Your task to perform on an android device: turn pop-ups on in chrome Image 0: 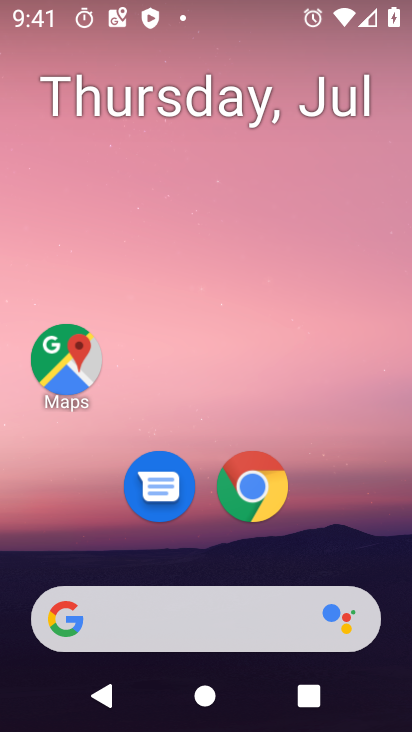
Step 0: drag from (202, 531) to (211, 45)
Your task to perform on an android device: turn pop-ups on in chrome Image 1: 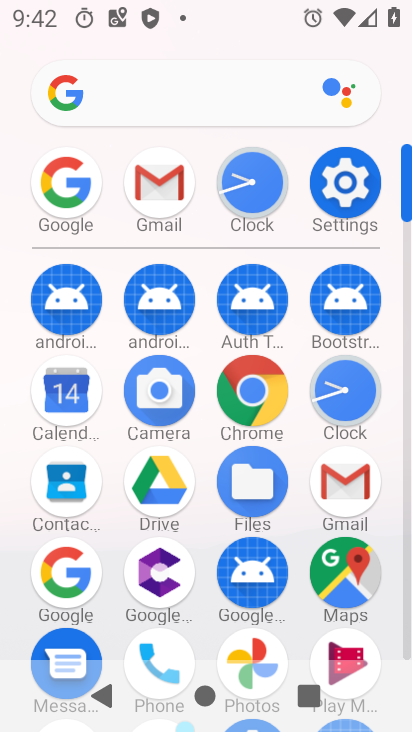
Step 1: click (263, 399)
Your task to perform on an android device: turn pop-ups on in chrome Image 2: 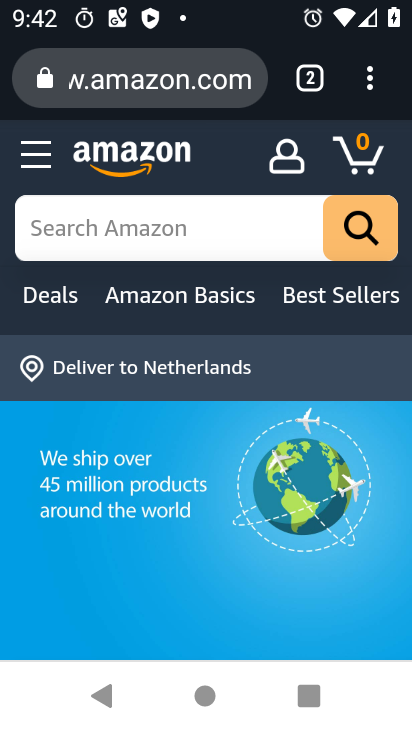
Step 2: click (375, 88)
Your task to perform on an android device: turn pop-ups on in chrome Image 3: 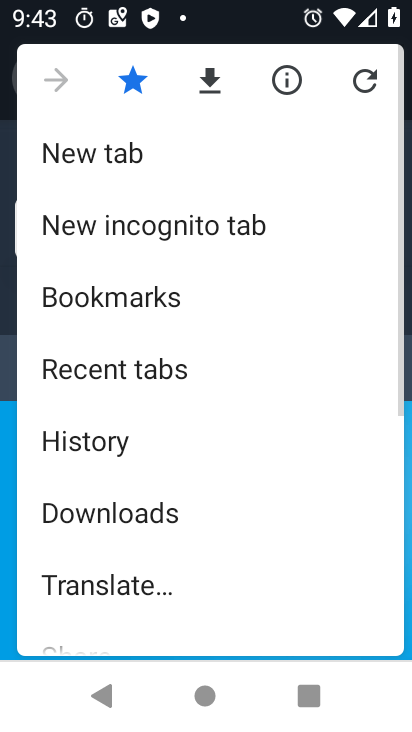
Step 3: drag from (190, 458) to (294, 166)
Your task to perform on an android device: turn pop-ups on in chrome Image 4: 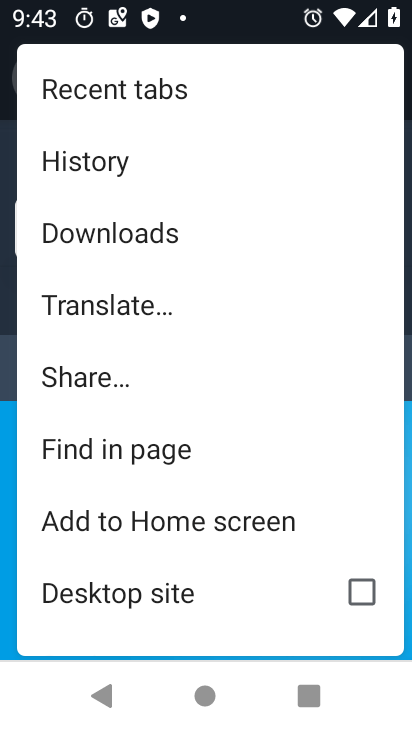
Step 4: drag from (216, 573) to (246, 276)
Your task to perform on an android device: turn pop-ups on in chrome Image 5: 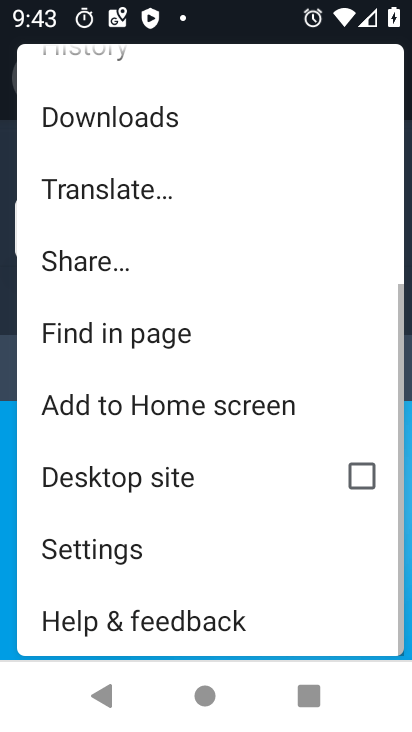
Step 5: click (156, 551)
Your task to perform on an android device: turn pop-ups on in chrome Image 6: 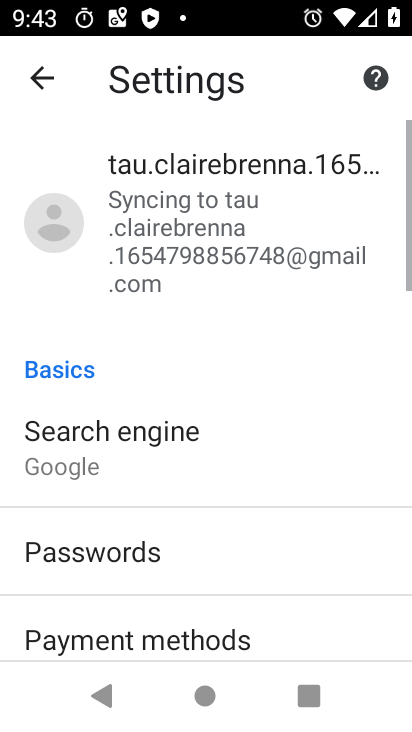
Step 6: drag from (162, 549) to (229, 271)
Your task to perform on an android device: turn pop-ups on in chrome Image 7: 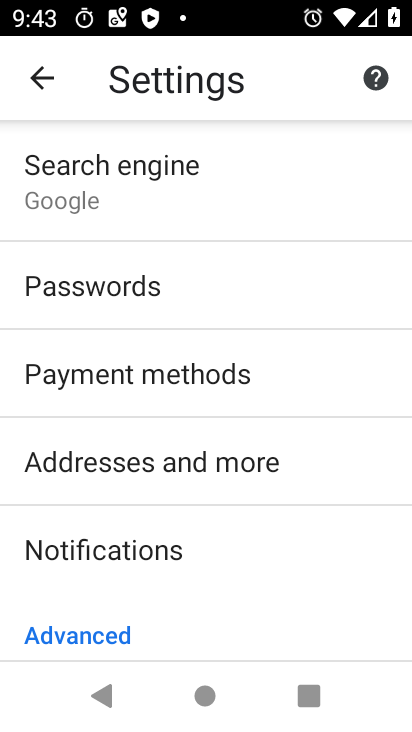
Step 7: drag from (224, 516) to (248, 317)
Your task to perform on an android device: turn pop-ups on in chrome Image 8: 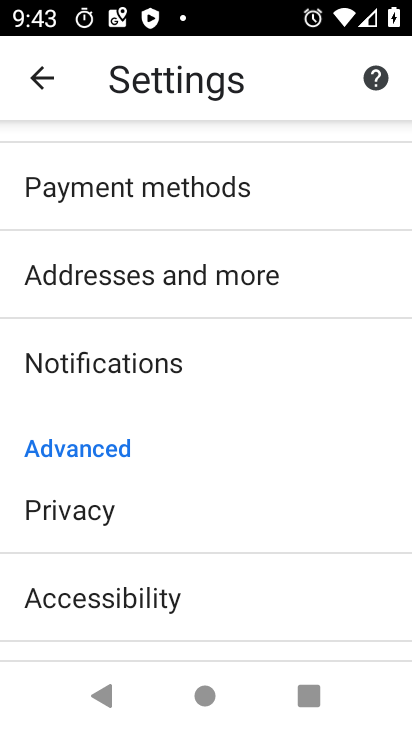
Step 8: drag from (252, 543) to (277, 377)
Your task to perform on an android device: turn pop-ups on in chrome Image 9: 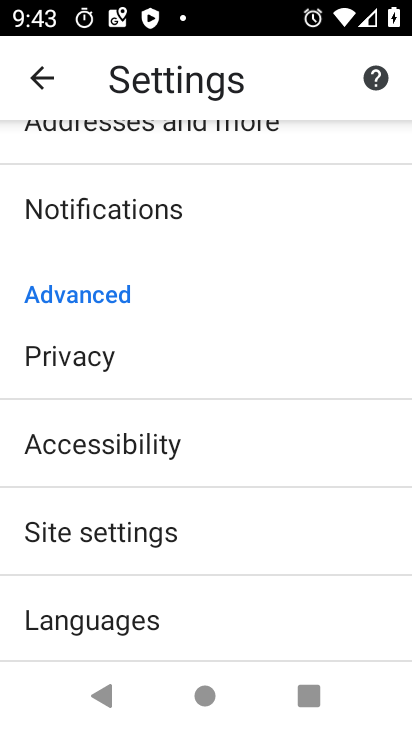
Step 9: drag from (225, 500) to (229, 353)
Your task to perform on an android device: turn pop-ups on in chrome Image 10: 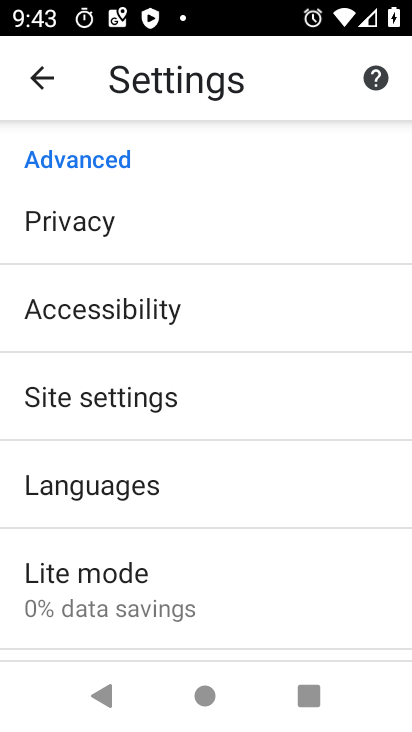
Step 10: drag from (223, 550) to (241, 379)
Your task to perform on an android device: turn pop-ups on in chrome Image 11: 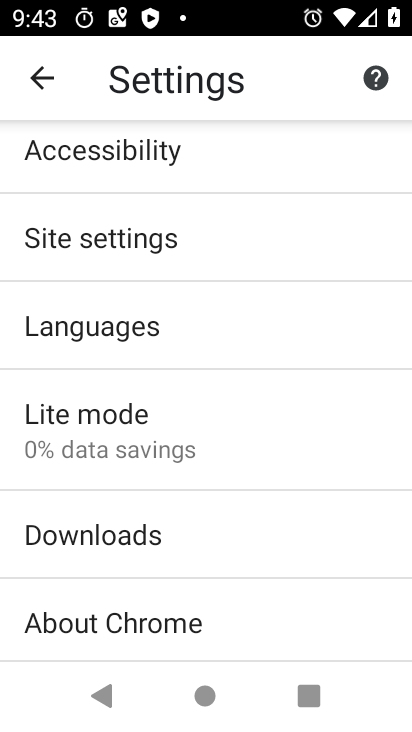
Step 11: click (113, 261)
Your task to perform on an android device: turn pop-ups on in chrome Image 12: 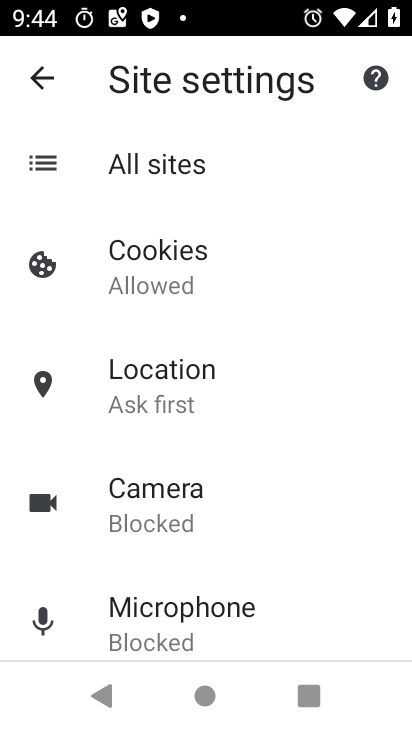
Step 12: drag from (269, 432) to (330, 171)
Your task to perform on an android device: turn pop-ups on in chrome Image 13: 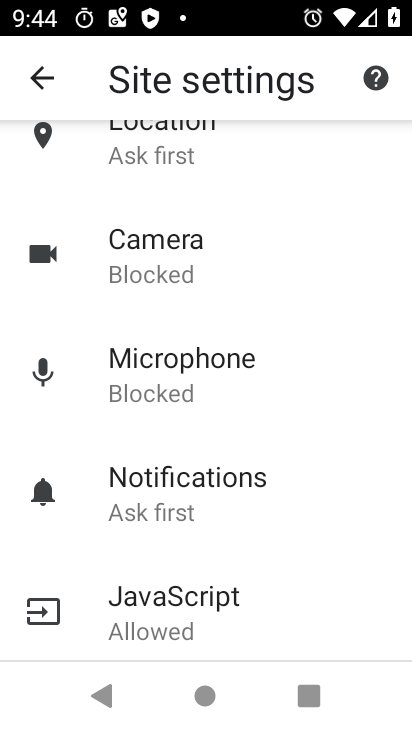
Step 13: drag from (217, 245) to (296, 139)
Your task to perform on an android device: turn pop-ups on in chrome Image 14: 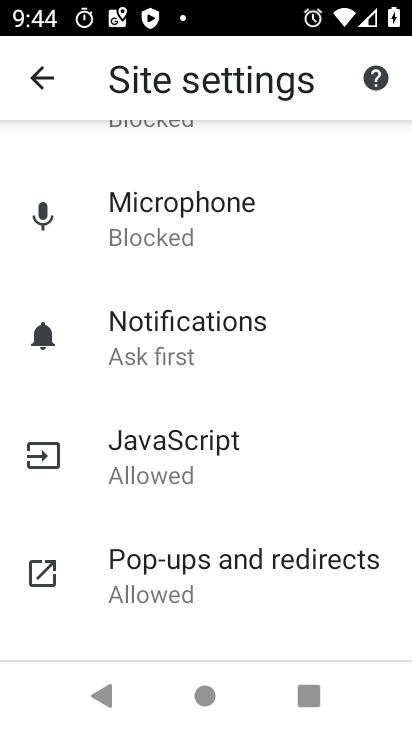
Step 14: click (186, 581)
Your task to perform on an android device: turn pop-ups on in chrome Image 15: 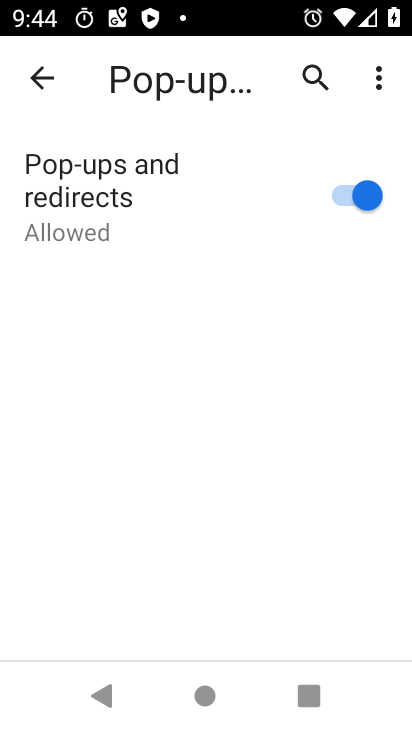
Step 15: task complete